Your task to perform on an android device: Open calendar and show me the third week of next month Image 0: 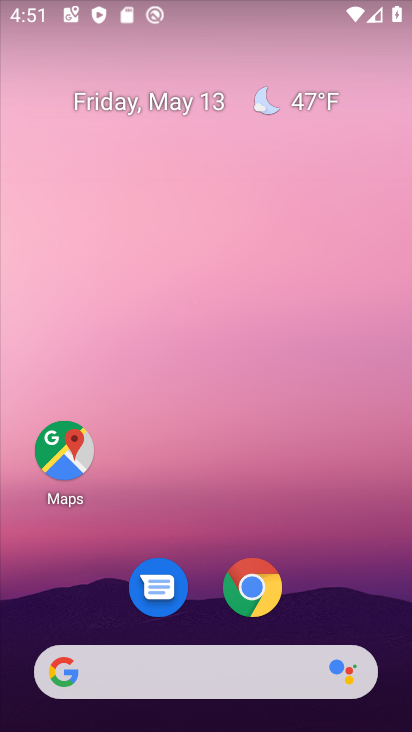
Step 0: drag from (236, 478) to (236, 74)
Your task to perform on an android device: Open calendar and show me the third week of next month Image 1: 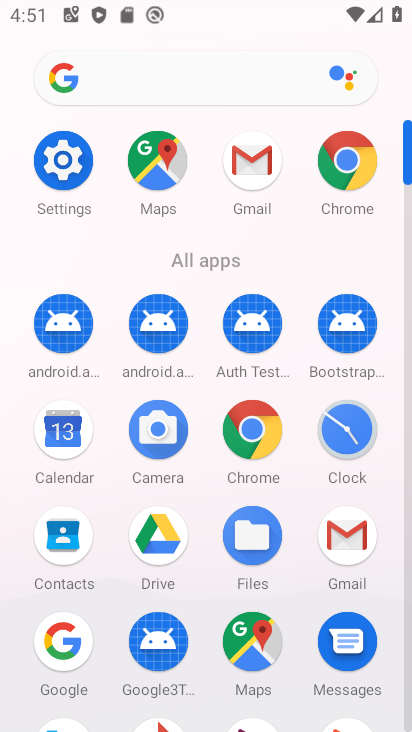
Step 1: click (74, 432)
Your task to perform on an android device: Open calendar and show me the third week of next month Image 2: 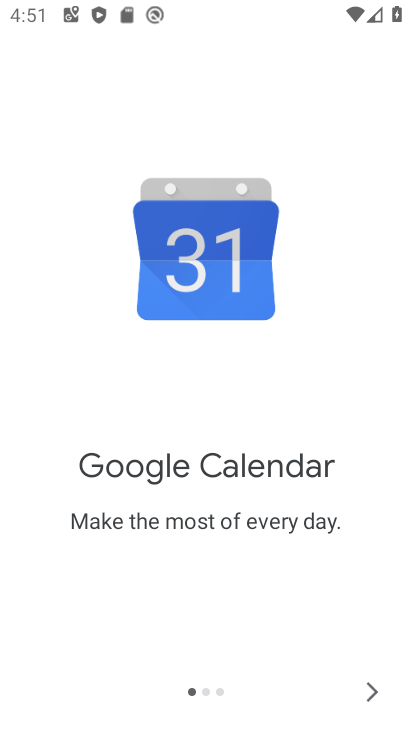
Step 2: click (370, 695)
Your task to perform on an android device: Open calendar and show me the third week of next month Image 3: 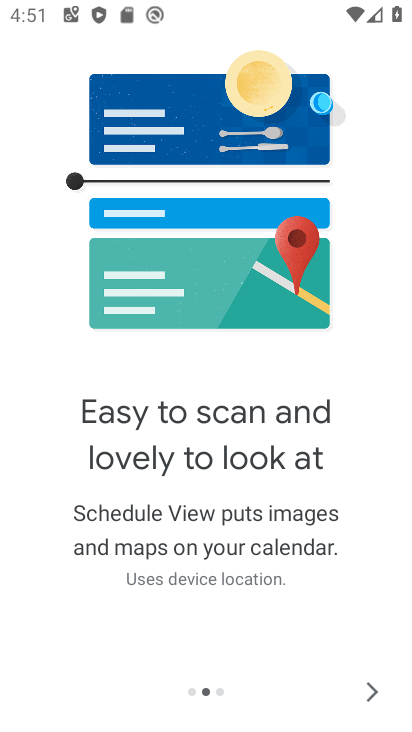
Step 3: click (370, 692)
Your task to perform on an android device: Open calendar and show me the third week of next month Image 4: 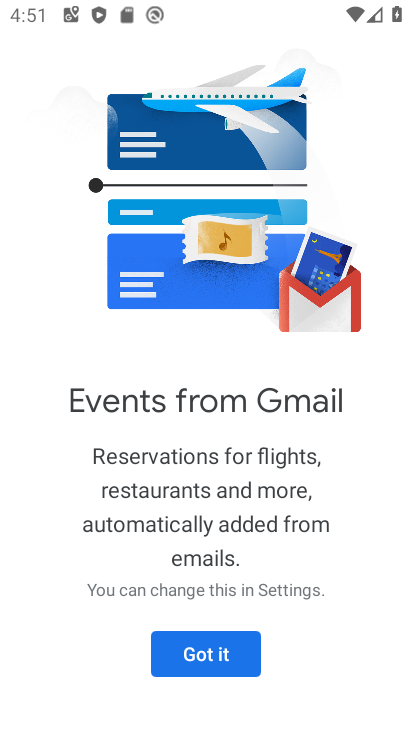
Step 4: click (227, 651)
Your task to perform on an android device: Open calendar and show me the third week of next month Image 5: 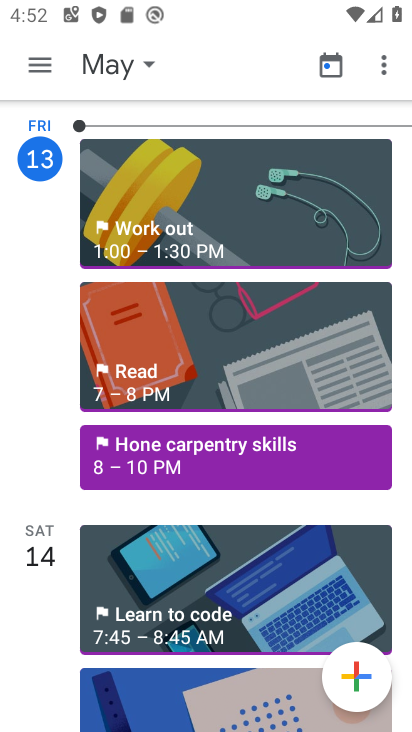
Step 5: click (127, 62)
Your task to perform on an android device: Open calendar and show me the third week of next month Image 6: 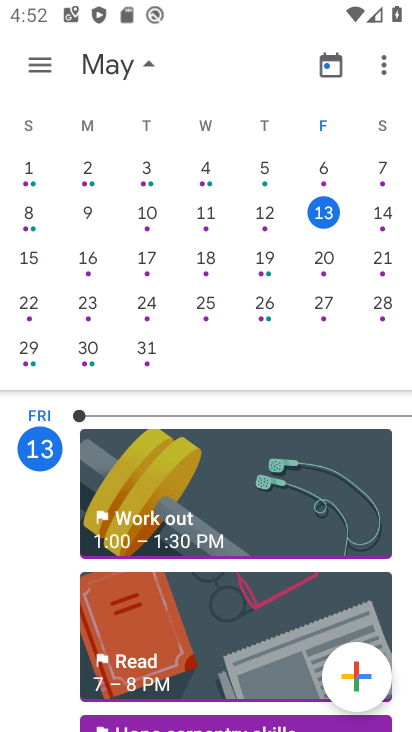
Step 6: drag from (393, 188) to (41, 214)
Your task to perform on an android device: Open calendar and show me the third week of next month Image 7: 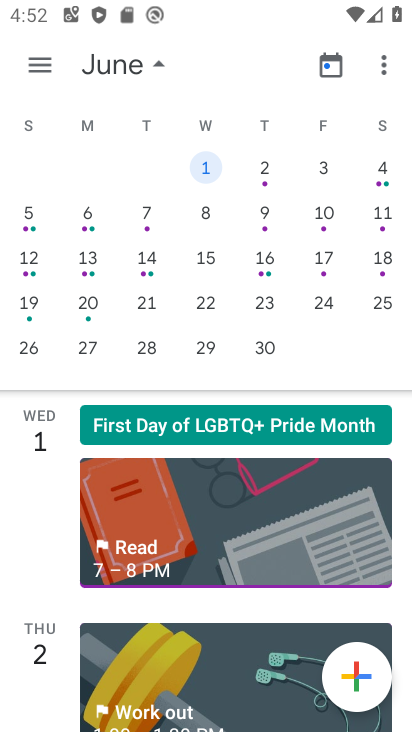
Step 7: click (263, 249)
Your task to perform on an android device: Open calendar and show me the third week of next month Image 8: 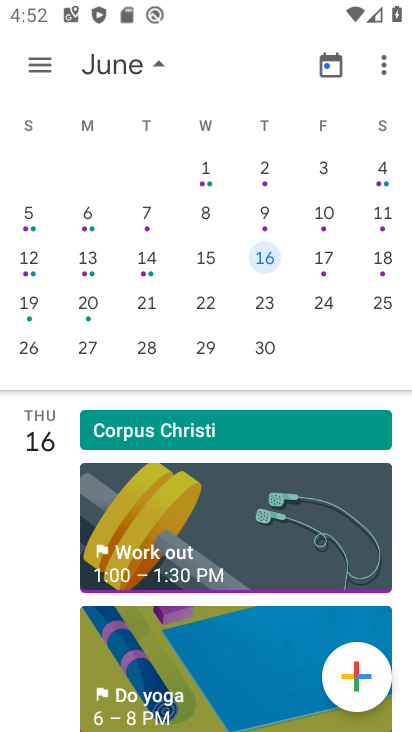
Step 8: task complete